Your task to perform on an android device: Do I have any events this weekend? Image 0: 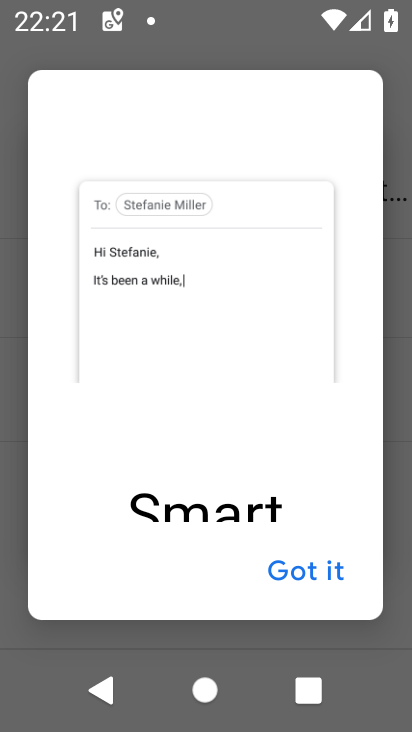
Step 0: press home button
Your task to perform on an android device: Do I have any events this weekend? Image 1: 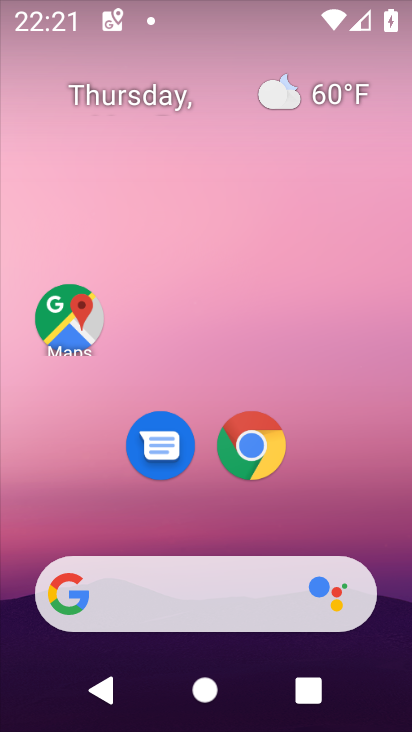
Step 1: drag from (254, 598) to (246, 147)
Your task to perform on an android device: Do I have any events this weekend? Image 2: 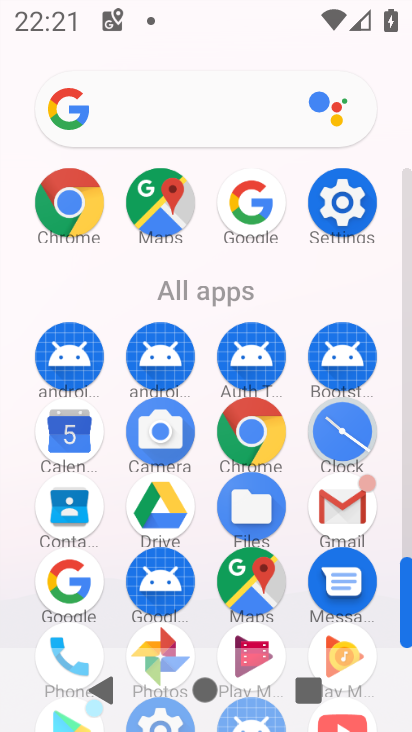
Step 2: click (72, 431)
Your task to perform on an android device: Do I have any events this weekend? Image 3: 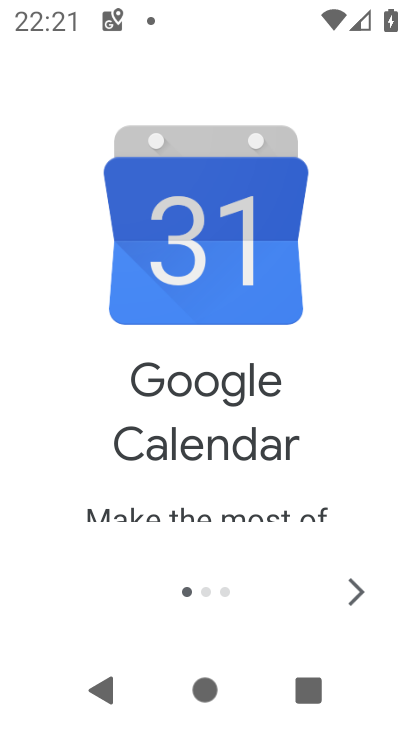
Step 3: click (358, 581)
Your task to perform on an android device: Do I have any events this weekend? Image 4: 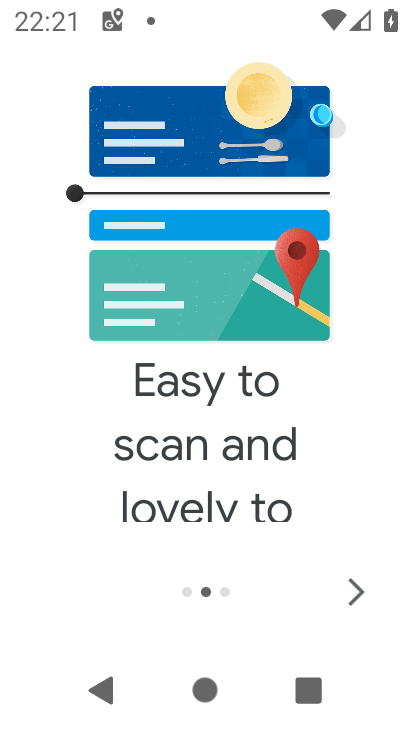
Step 4: click (358, 581)
Your task to perform on an android device: Do I have any events this weekend? Image 5: 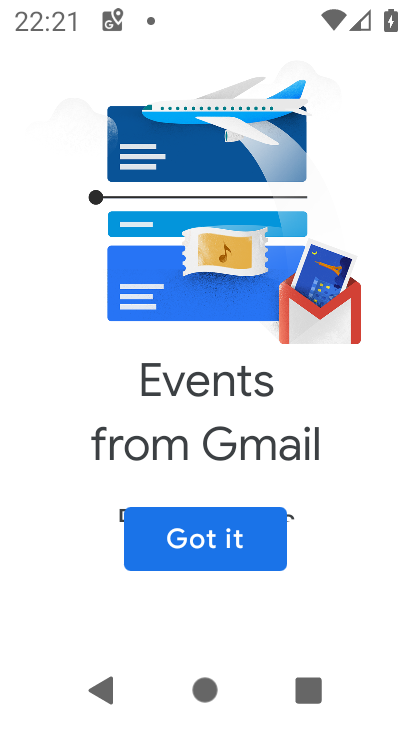
Step 5: click (259, 556)
Your task to perform on an android device: Do I have any events this weekend? Image 6: 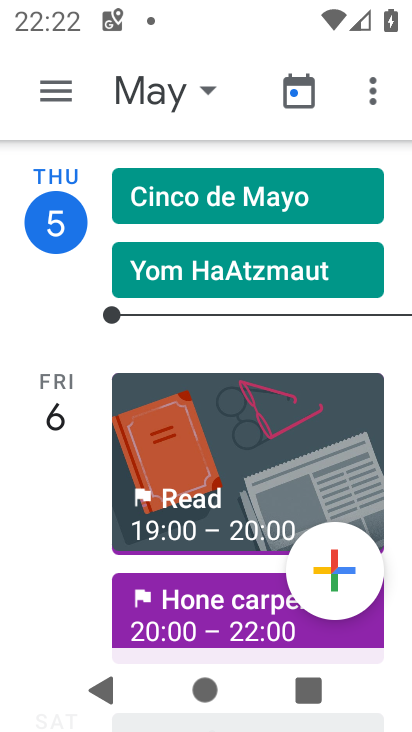
Step 6: click (54, 98)
Your task to perform on an android device: Do I have any events this weekend? Image 7: 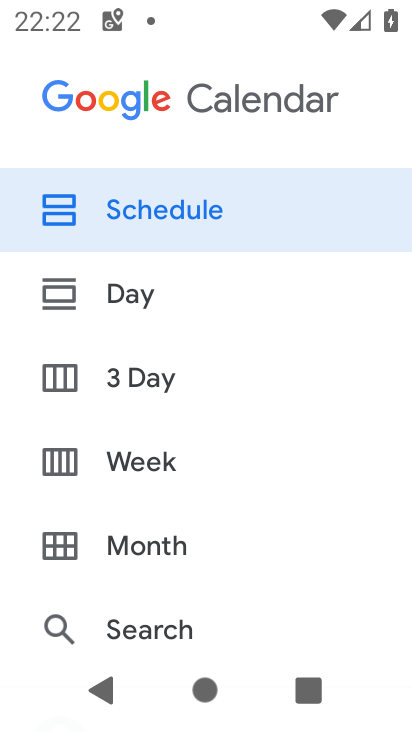
Step 7: click (148, 455)
Your task to perform on an android device: Do I have any events this weekend? Image 8: 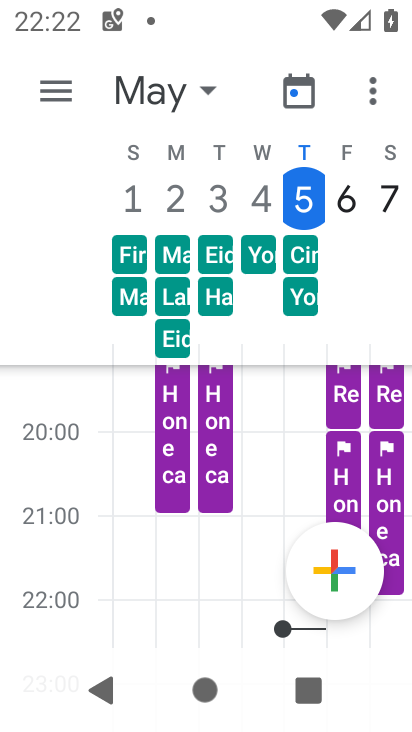
Step 8: task complete